Your task to perform on an android device: Open Google Maps and go to "Timeline" Image 0: 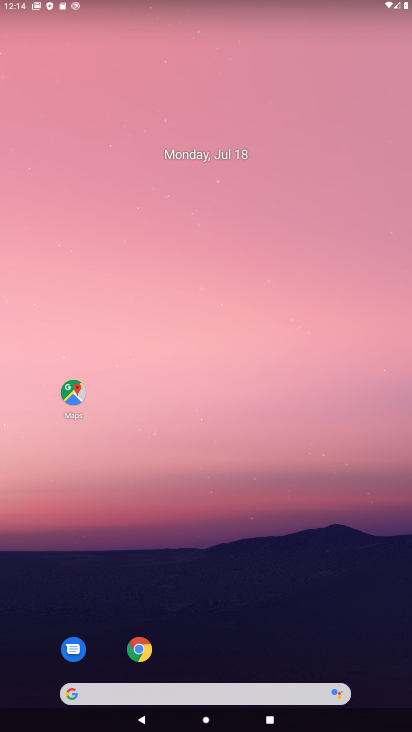
Step 0: click (71, 395)
Your task to perform on an android device: Open Google Maps and go to "Timeline" Image 1: 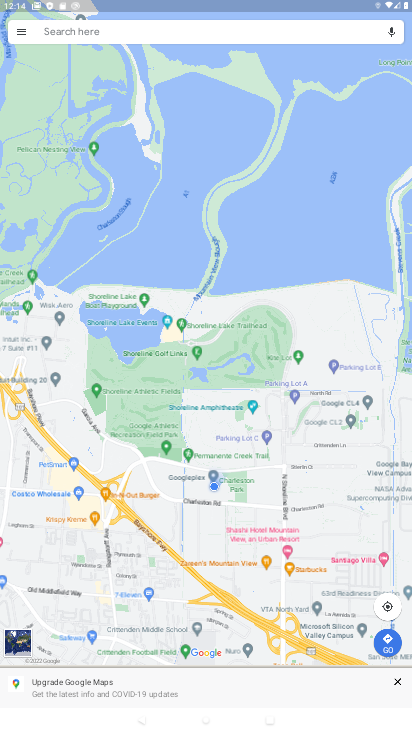
Step 1: click (22, 30)
Your task to perform on an android device: Open Google Maps and go to "Timeline" Image 2: 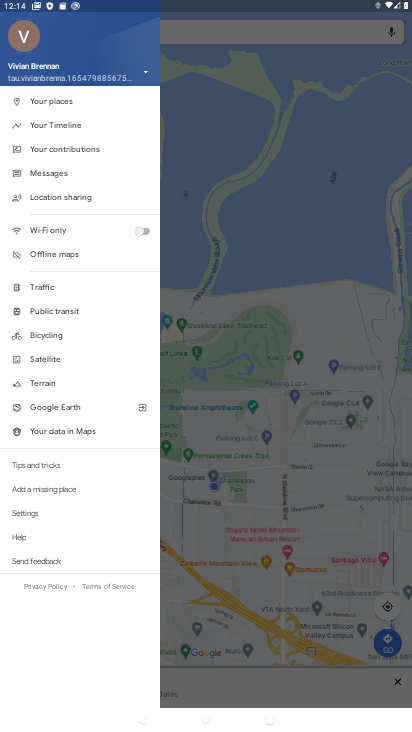
Step 2: click (55, 122)
Your task to perform on an android device: Open Google Maps and go to "Timeline" Image 3: 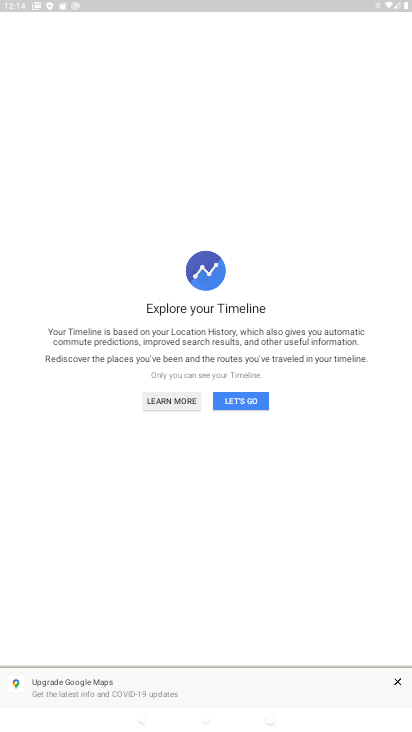
Step 3: click (241, 405)
Your task to perform on an android device: Open Google Maps and go to "Timeline" Image 4: 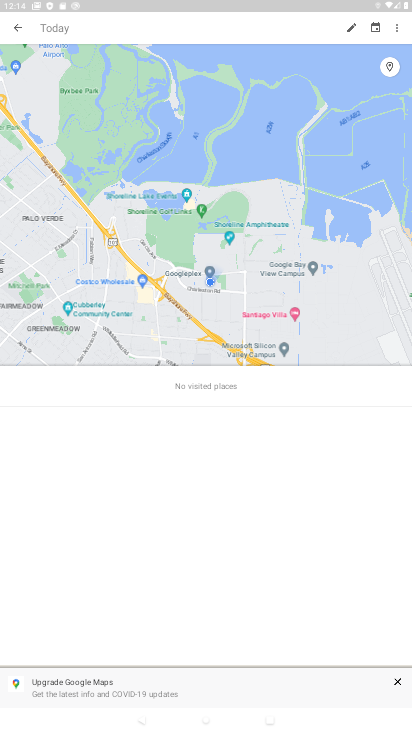
Step 4: task complete